Your task to perform on an android device: open app "Facebook" Image 0: 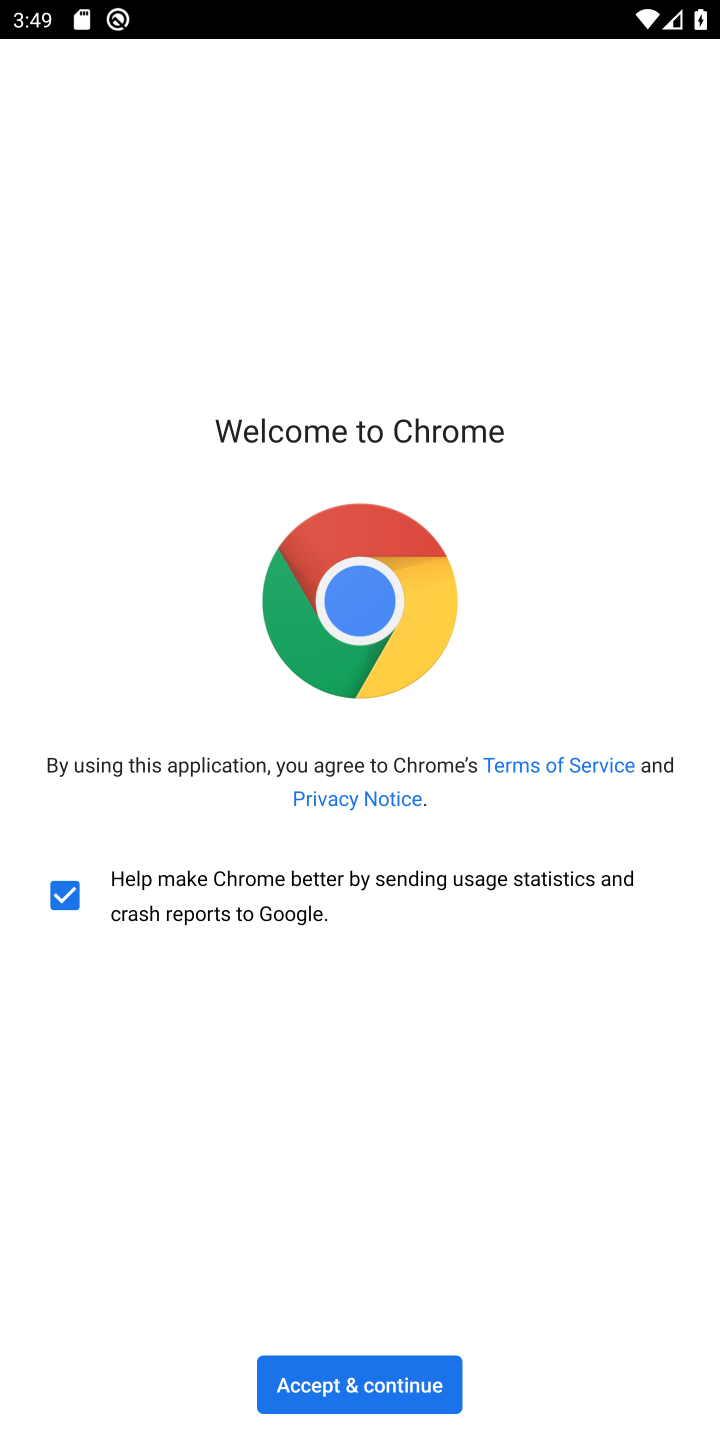
Step 0: press home button
Your task to perform on an android device: open app "Facebook" Image 1: 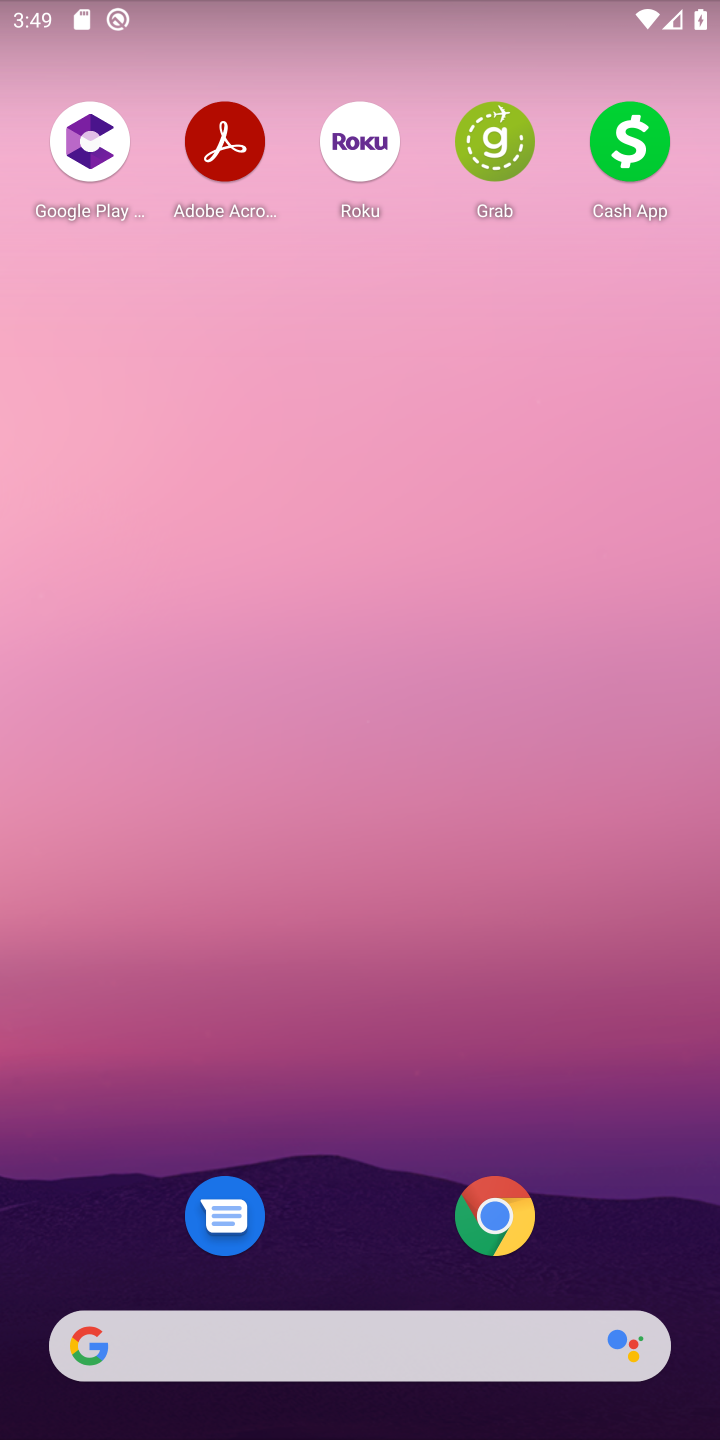
Step 1: drag from (339, 1272) to (453, 10)
Your task to perform on an android device: open app "Facebook" Image 2: 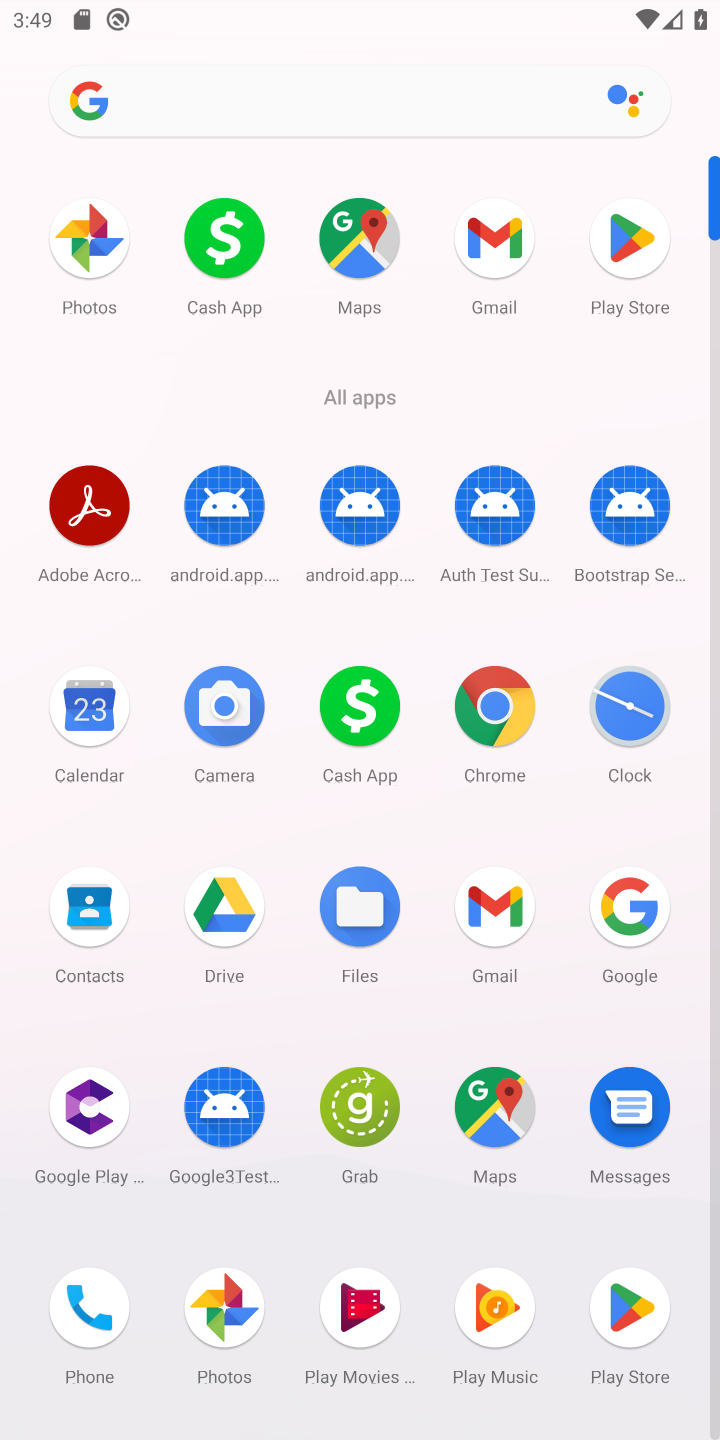
Step 2: click (625, 277)
Your task to perform on an android device: open app "Facebook" Image 3: 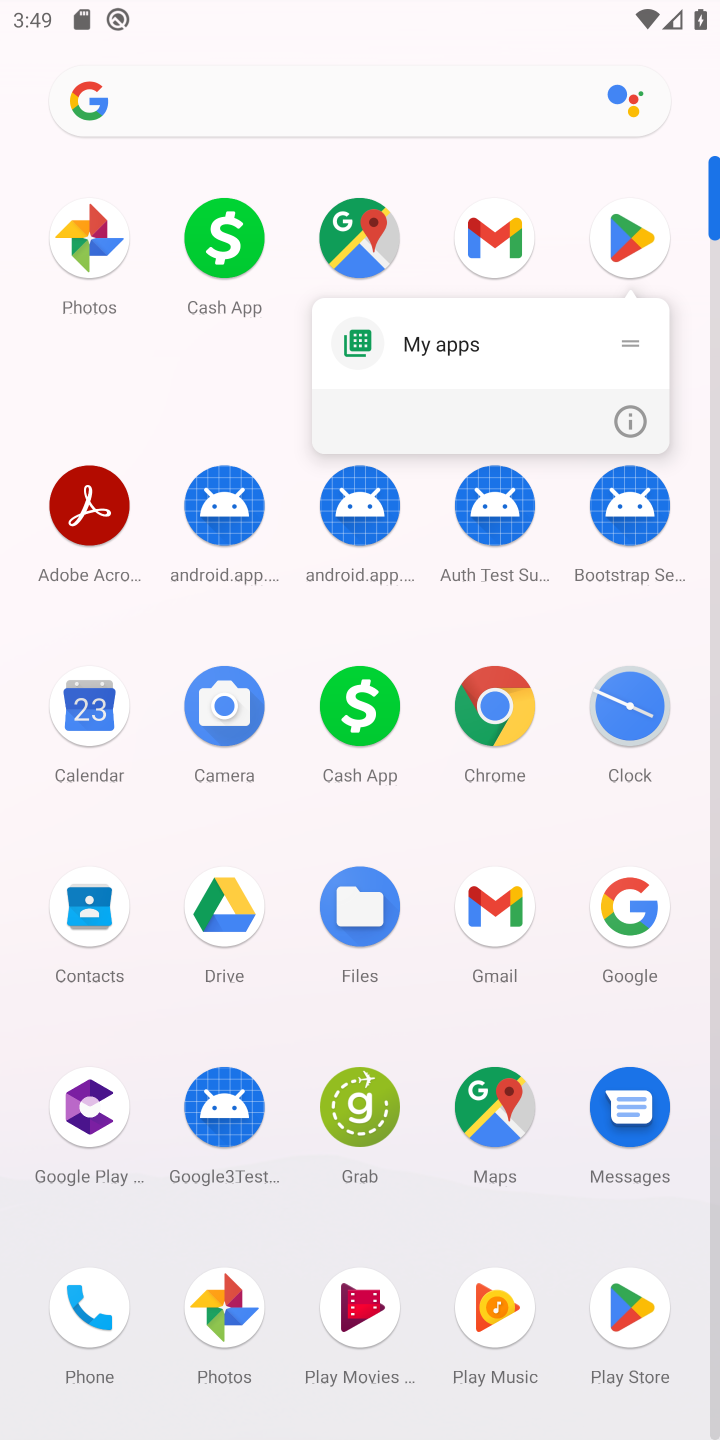
Step 3: click (638, 217)
Your task to perform on an android device: open app "Facebook" Image 4: 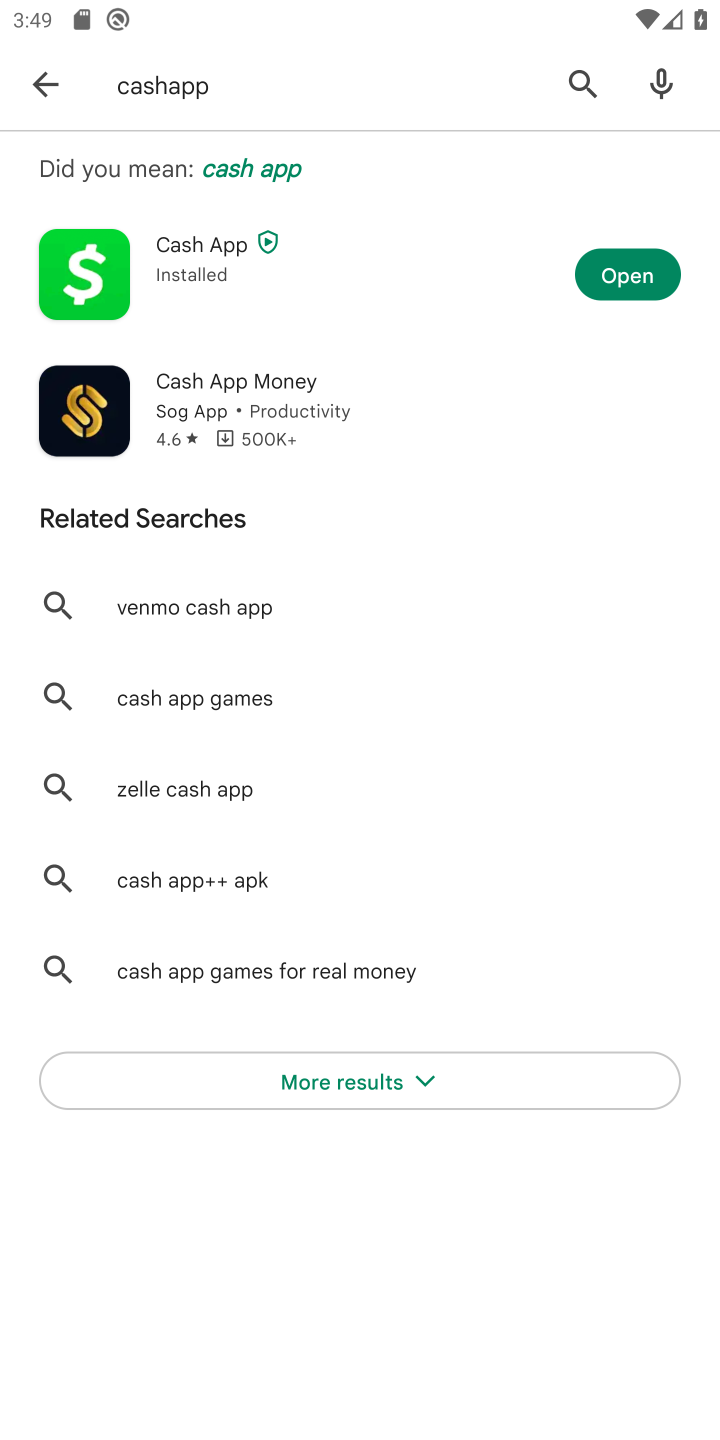
Step 4: click (322, 88)
Your task to perform on an android device: open app "Facebook" Image 5: 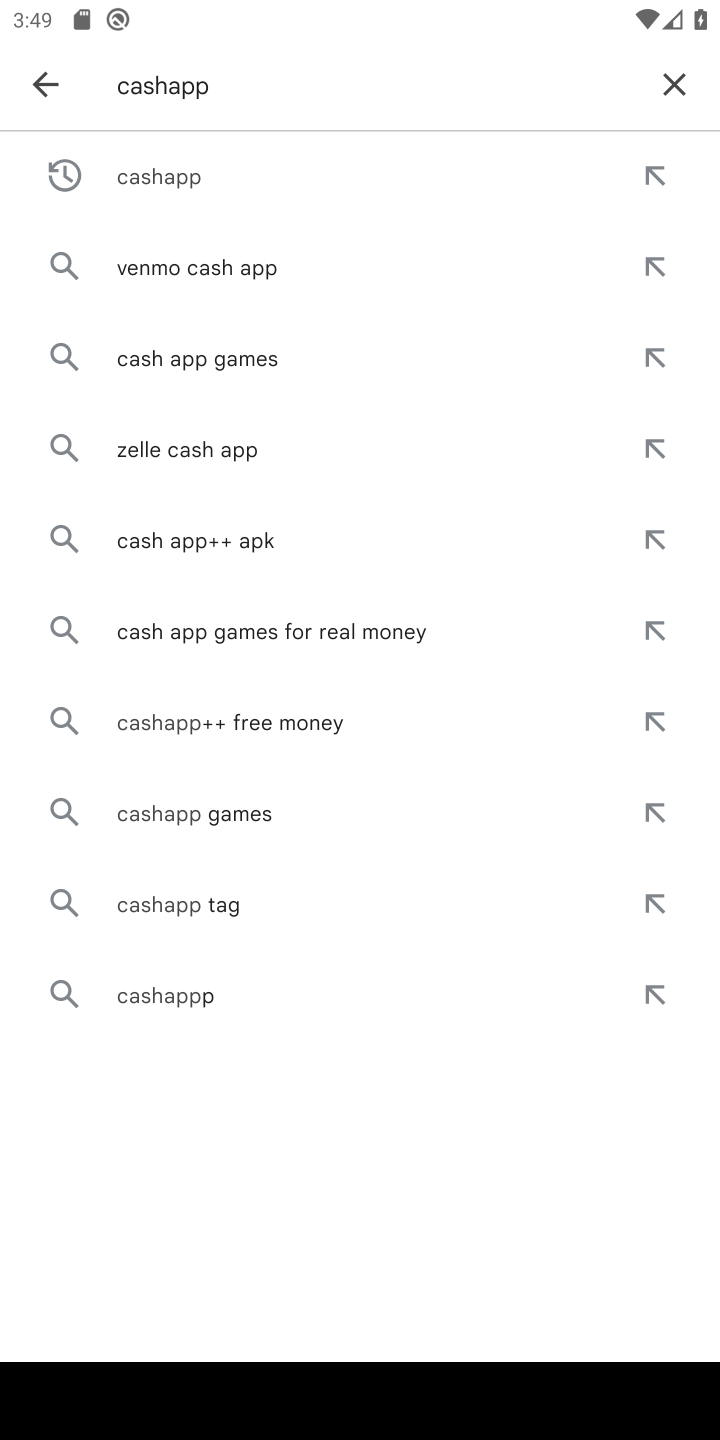
Step 5: click (665, 87)
Your task to perform on an android device: open app "Facebook" Image 6: 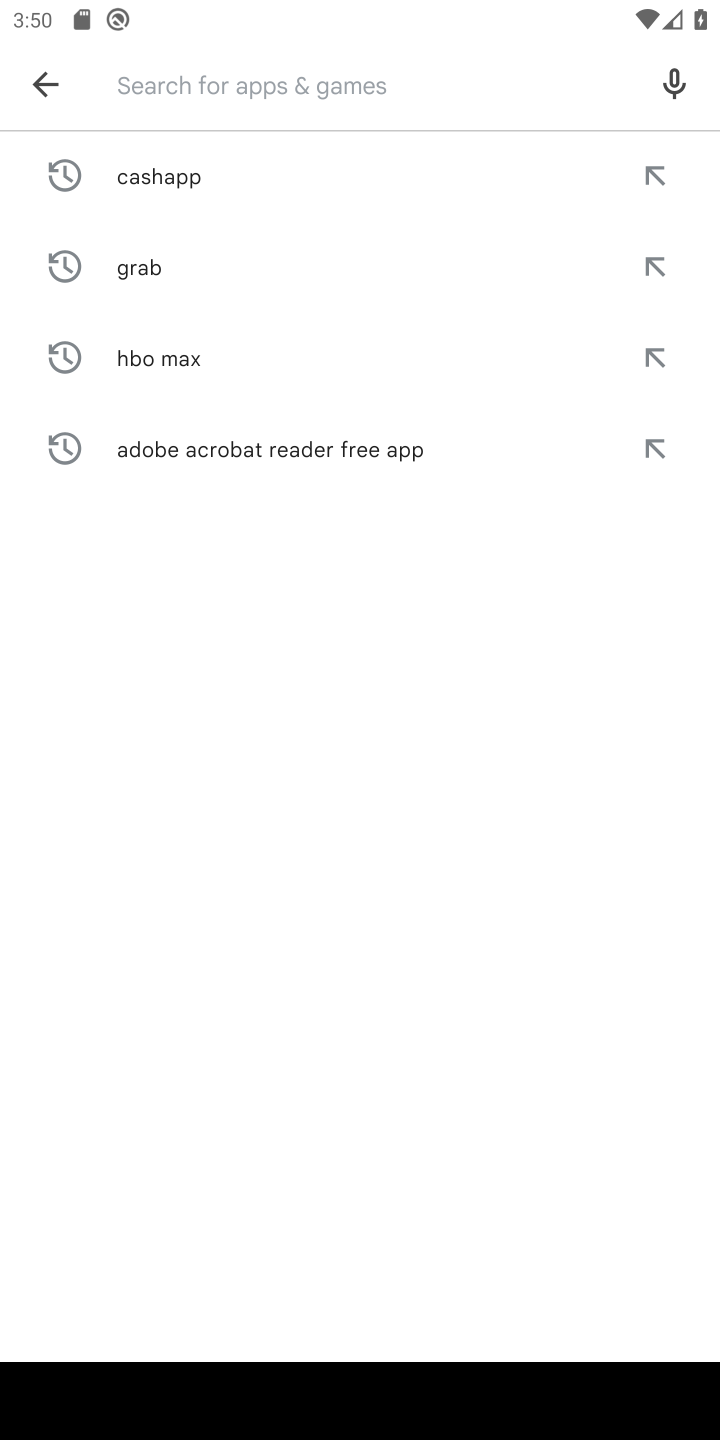
Step 6: type "facebook"
Your task to perform on an android device: open app "Facebook" Image 7: 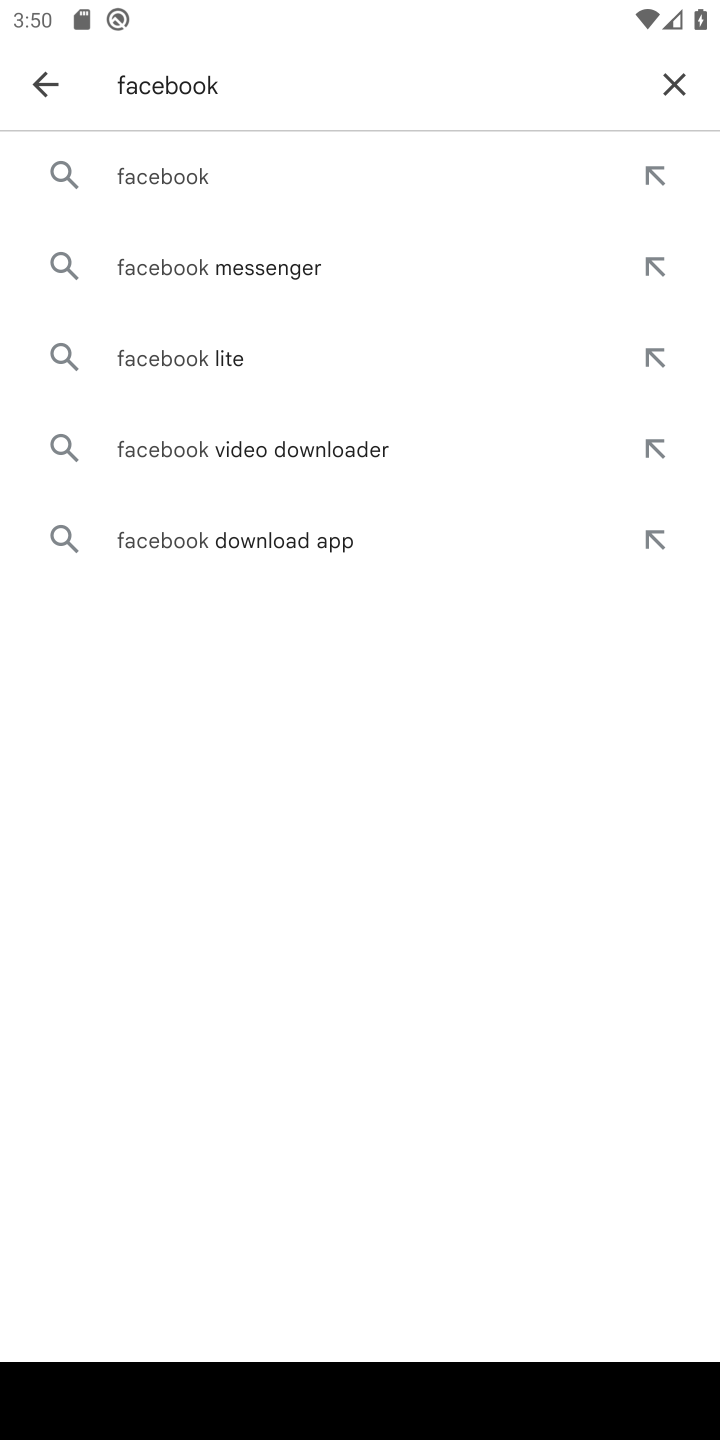
Step 7: click (208, 177)
Your task to perform on an android device: open app "Facebook" Image 8: 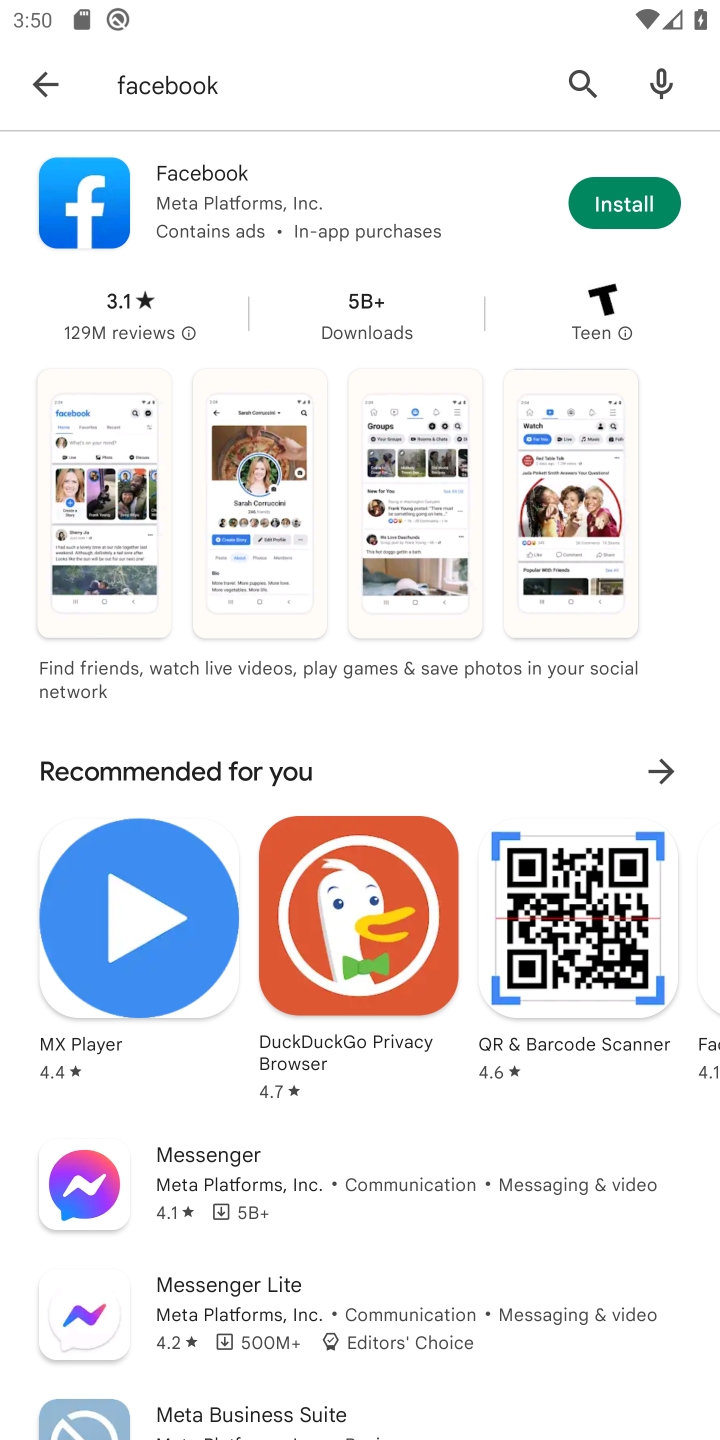
Step 8: task complete